Your task to perform on an android device: Open accessibility settings Image 0: 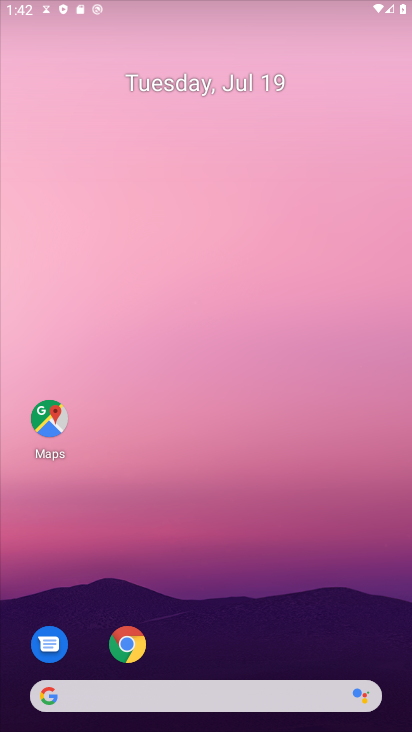
Step 0: drag from (252, 542) to (250, 230)
Your task to perform on an android device: Open accessibility settings Image 1: 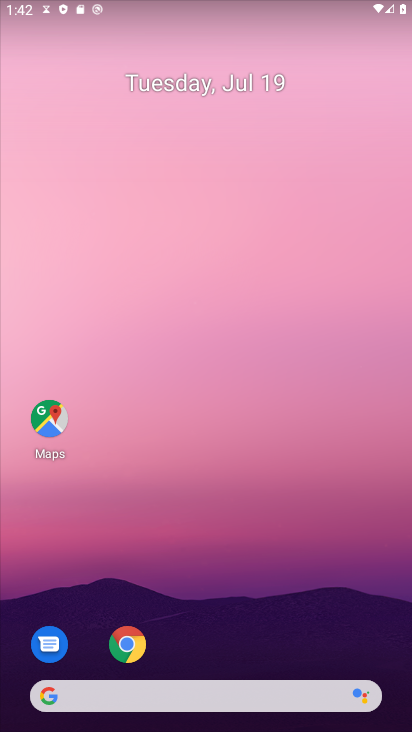
Step 1: drag from (261, 612) to (250, 164)
Your task to perform on an android device: Open accessibility settings Image 2: 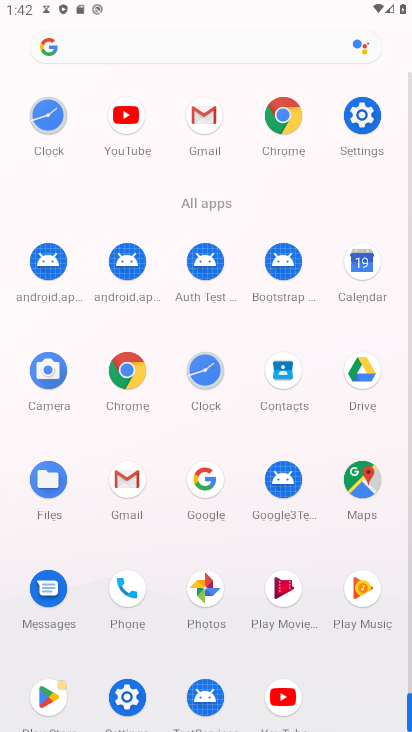
Step 2: click (351, 117)
Your task to perform on an android device: Open accessibility settings Image 3: 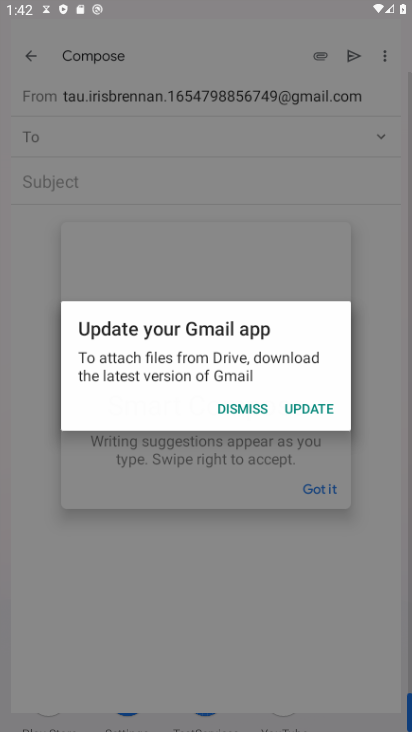
Step 3: click (355, 127)
Your task to perform on an android device: Open accessibility settings Image 4: 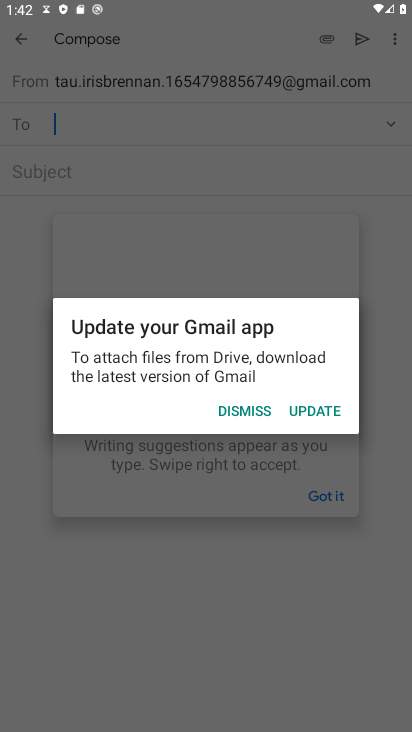
Step 4: click (353, 129)
Your task to perform on an android device: Open accessibility settings Image 5: 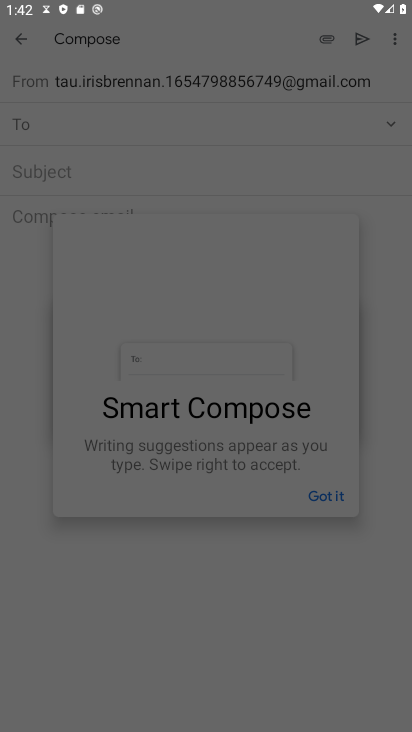
Step 5: click (250, 153)
Your task to perform on an android device: Open accessibility settings Image 6: 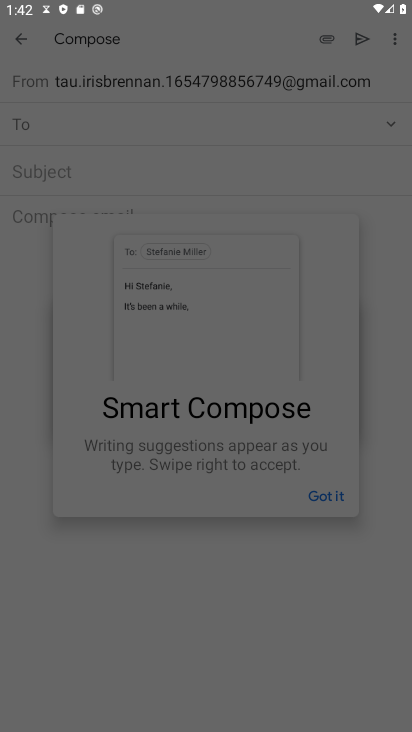
Step 6: click (17, 41)
Your task to perform on an android device: Open accessibility settings Image 7: 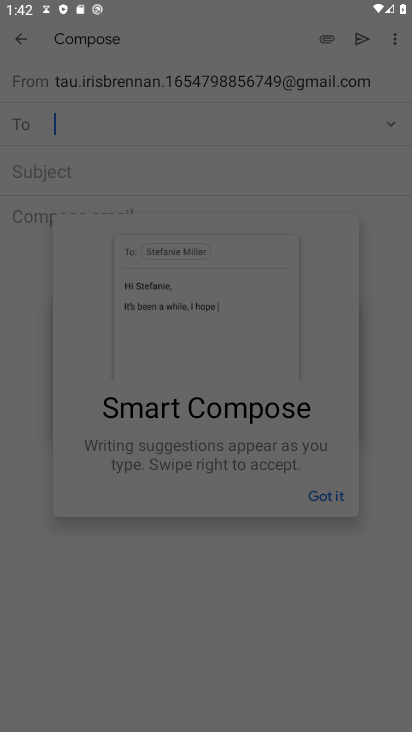
Step 7: click (337, 502)
Your task to perform on an android device: Open accessibility settings Image 8: 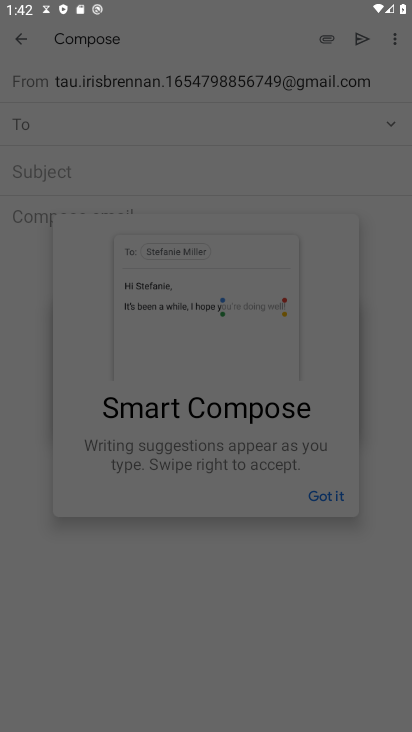
Step 8: click (324, 502)
Your task to perform on an android device: Open accessibility settings Image 9: 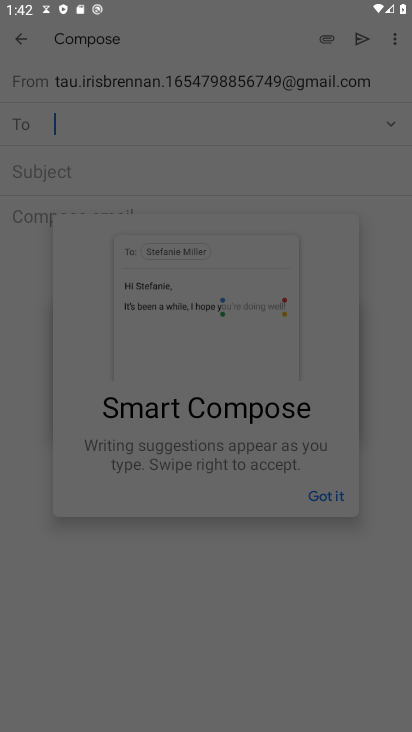
Step 9: click (324, 502)
Your task to perform on an android device: Open accessibility settings Image 10: 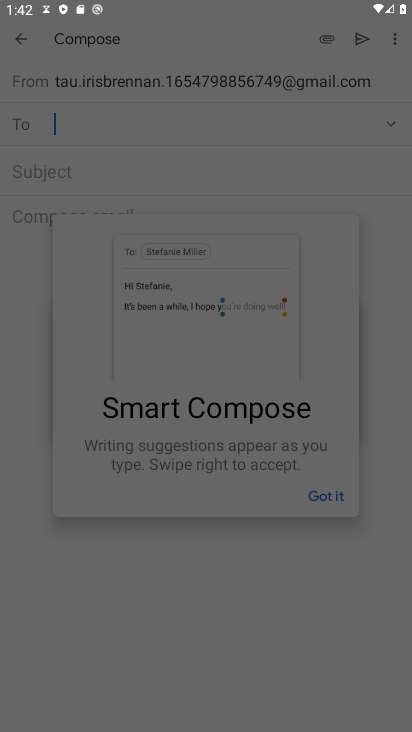
Step 10: click (323, 502)
Your task to perform on an android device: Open accessibility settings Image 11: 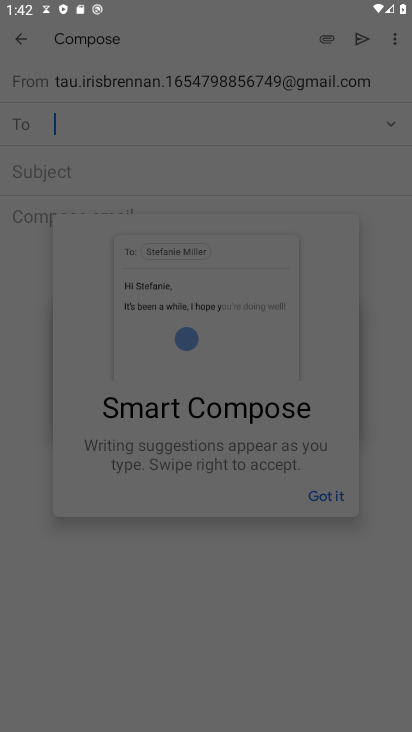
Step 11: press back button
Your task to perform on an android device: Open accessibility settings Image 12: 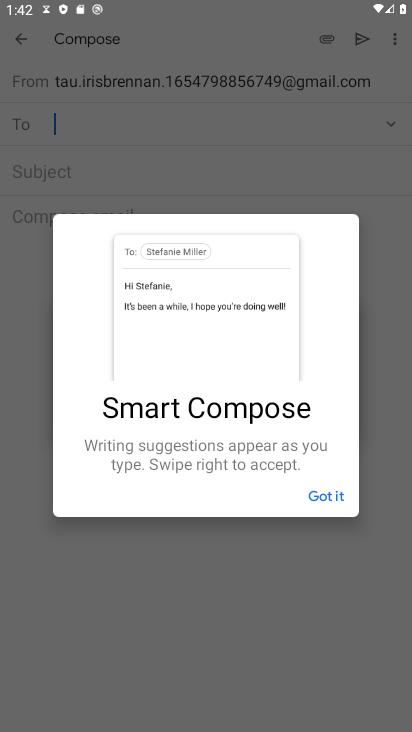
Step 12: press back button
Your task to perform on an android device: Open accessibility settings Image 13: 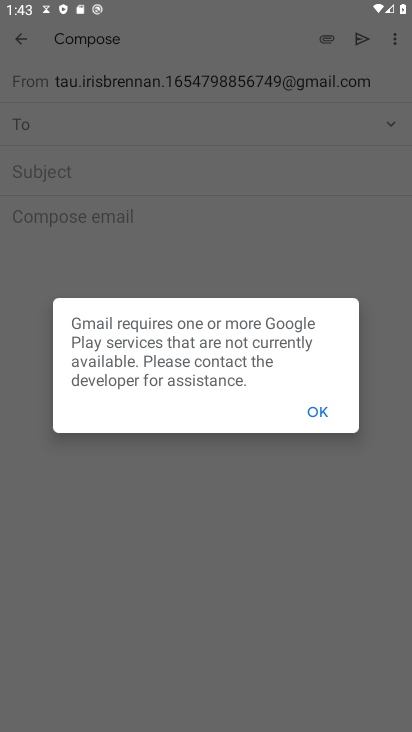
Step 13: click (301, 400)
Your task to perform on an android device: Open accessibility settings Image 14: 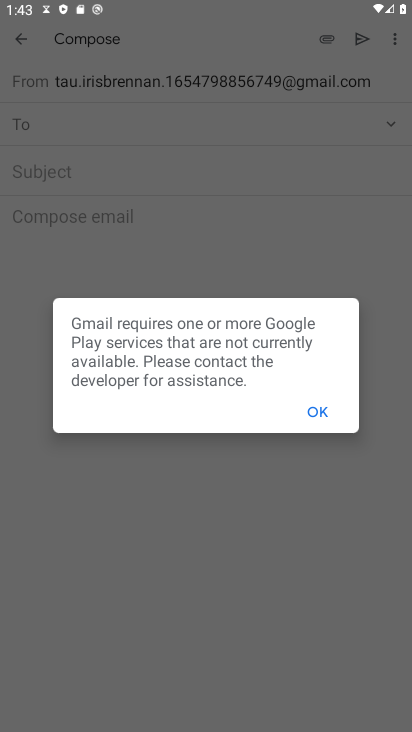
Step 14: click (319, 412)
Your task to perform on an android device: Open accessibility settings Image 15: 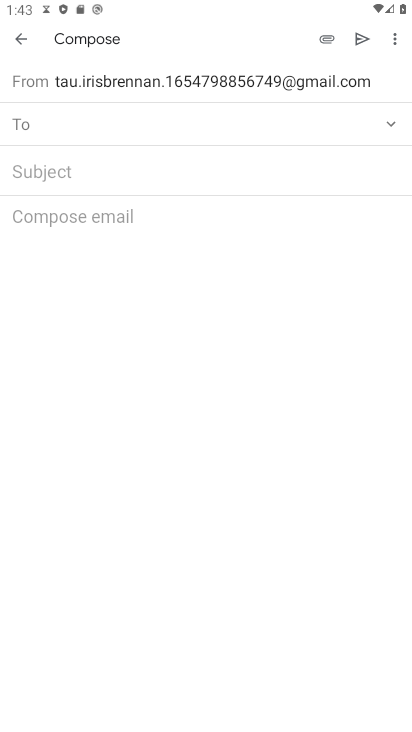
Step 15: click (320, 413)
Your task to perform on an android device: Open accessibility settings Image 16: 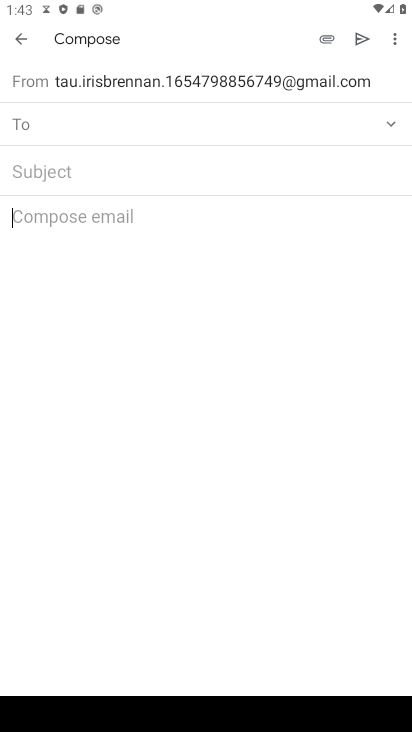
Step 16: click (16, 40)
Your task to perform on an android device: Open accessibility settings Image 17: 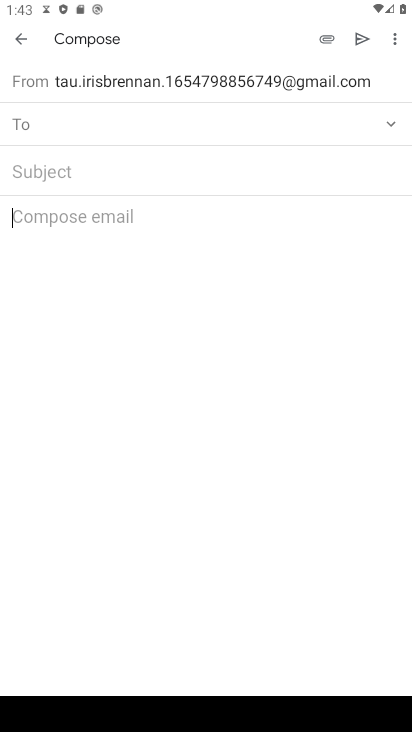
Step 17: click (14, 35)
Your task to perform on an android device: Open accessibility settings Image 18: 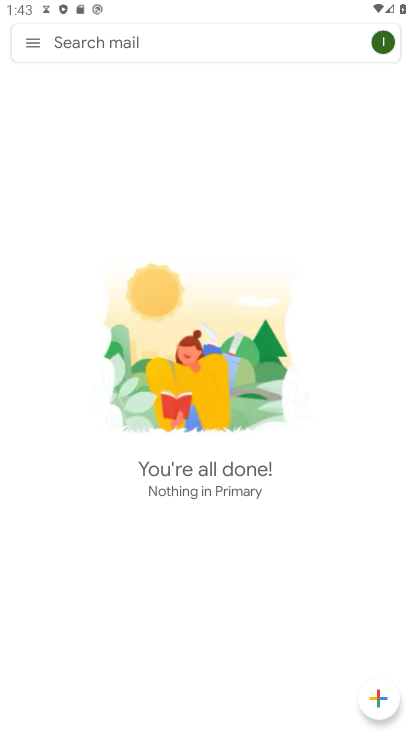
Step 18: press back button
Your task to perform on an android device: Open accessibility settings Image 19: 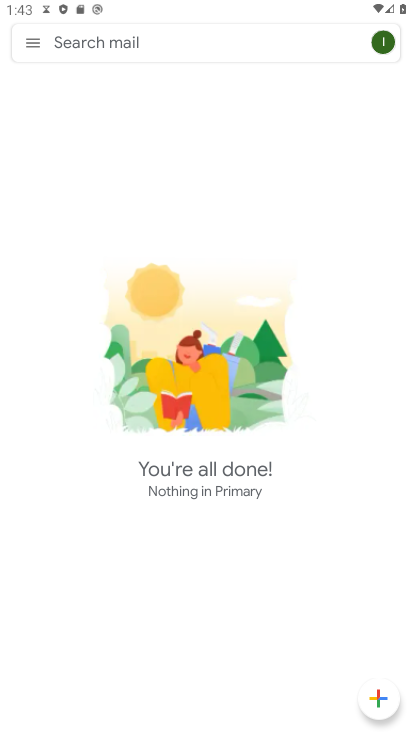
Step 19: press back button
Your task to perform on an android device: Open accessibility settings Image 20: 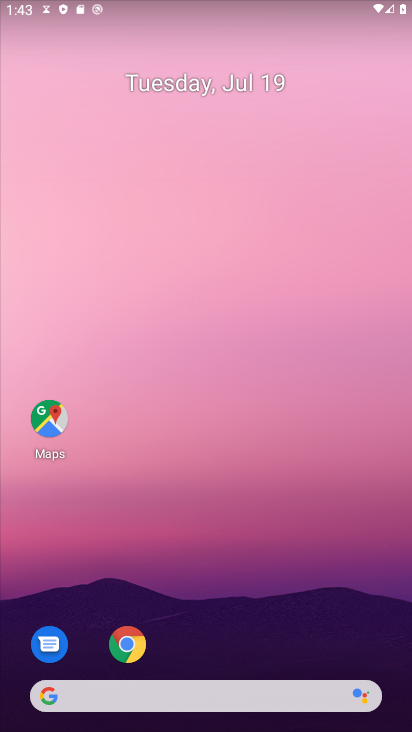
Step 20: drag from (253, 439) to (225, 147)
Your task to perform on an android device: Open accessibility settings Image 21: 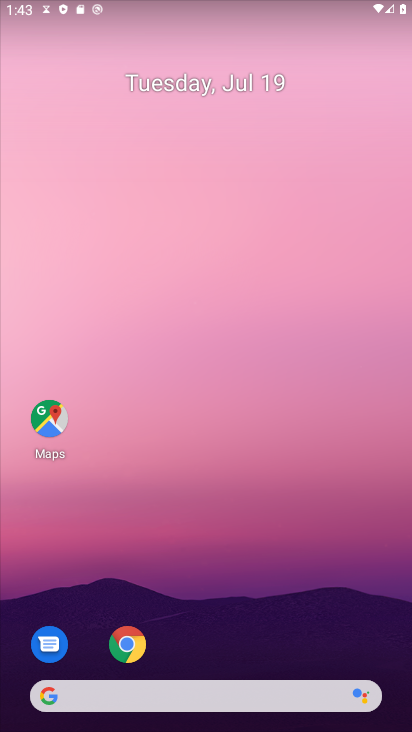
Step 21: drag from (216, 596) to (227, 137)
Your task to perform on an android device: Open accessibility settings Image 22: 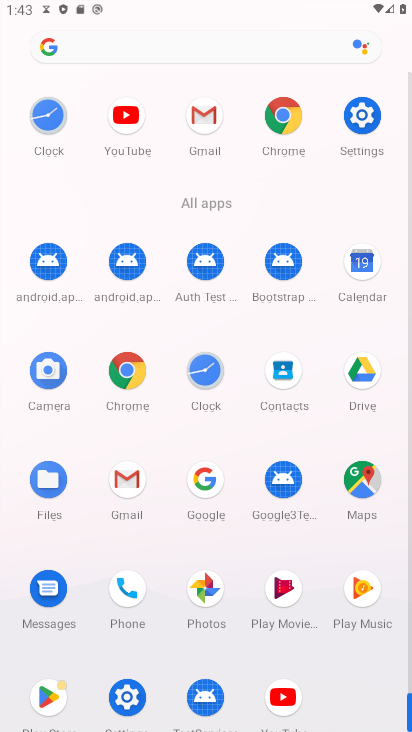
Step 22: click (363, 112)
Your task to perform on an android device: Open accessibility settings Image 23: 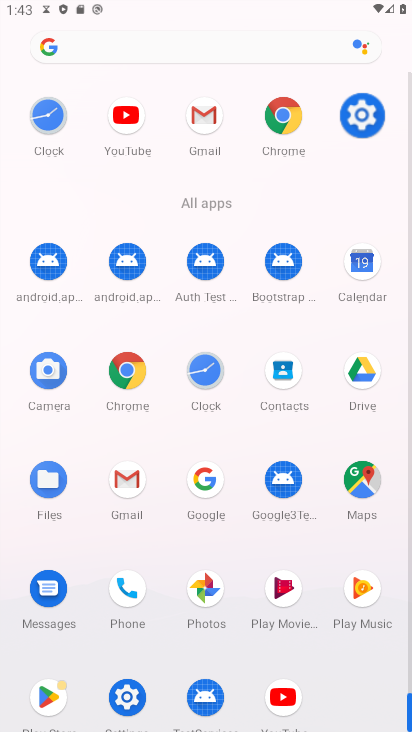
Step 23: click (363, 112)
Your task to perform on an android device: Open accessibility settings Image 24: 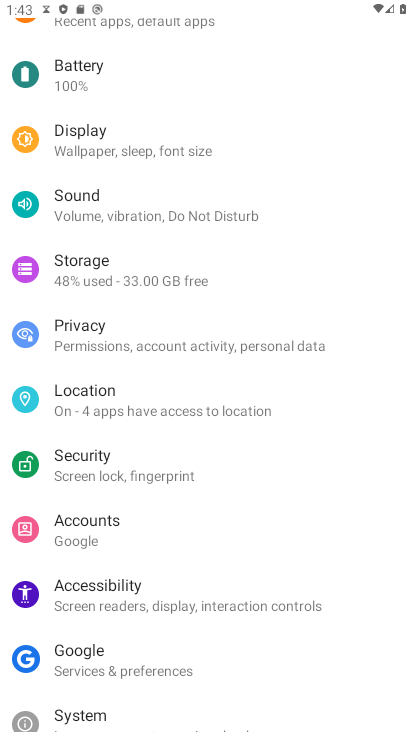
Step 24: click (114, 597)
Your task to perform on an android device: Open accessibility settings Image 25: 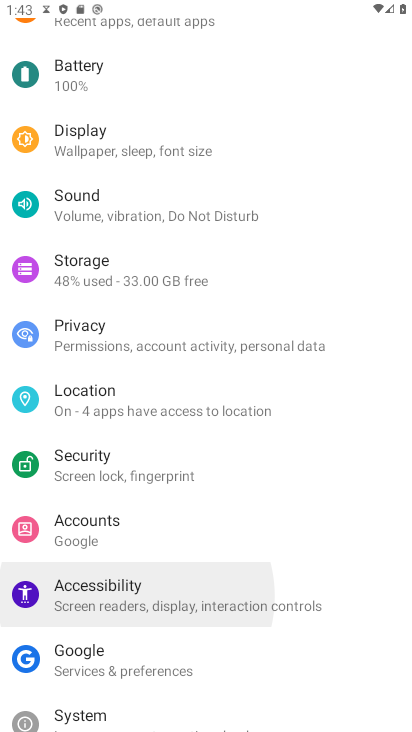
Step 25: click (111, 600)
Your task to perform on an android device: Open accessibility settings Image 26: 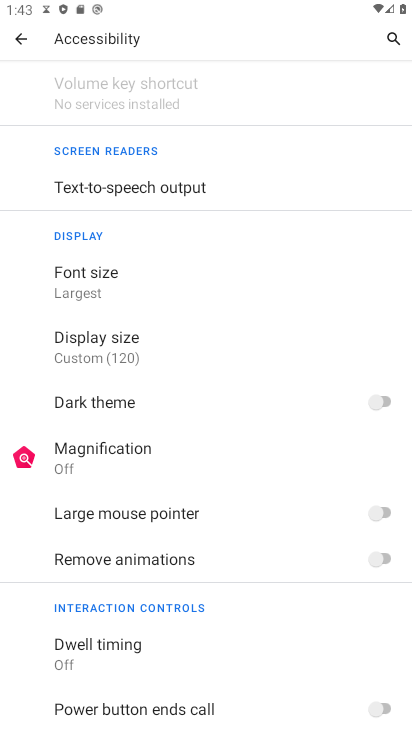
Step 26: task complete